Your task to perform on an android device: snooze an email in the gmail app Image 0: 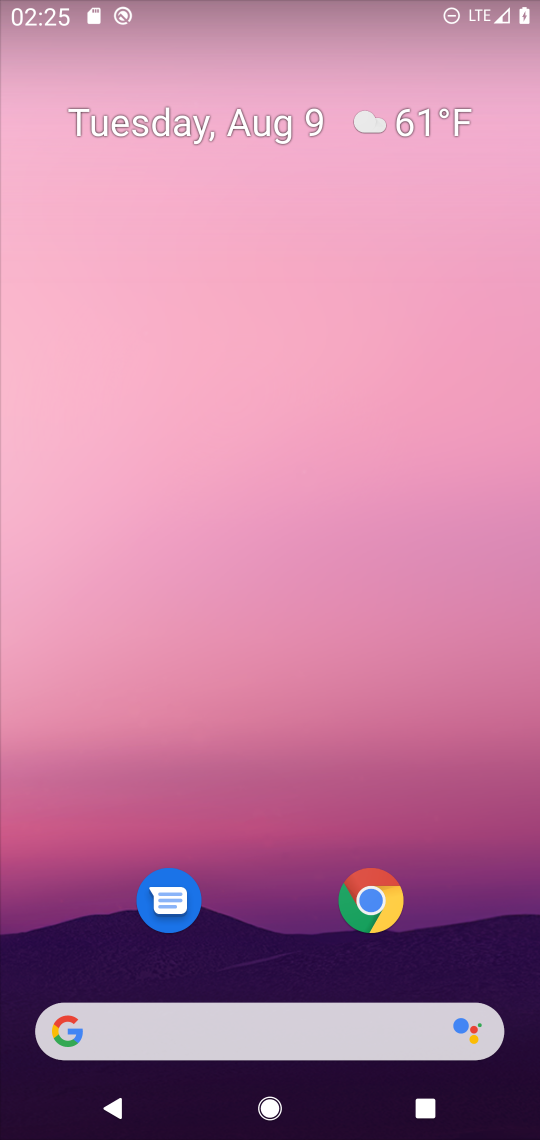
Step 0: drag from (271, 959) to (284, 292)
Your task to perform on an android device: snooze an email in the gmail app Image 1: 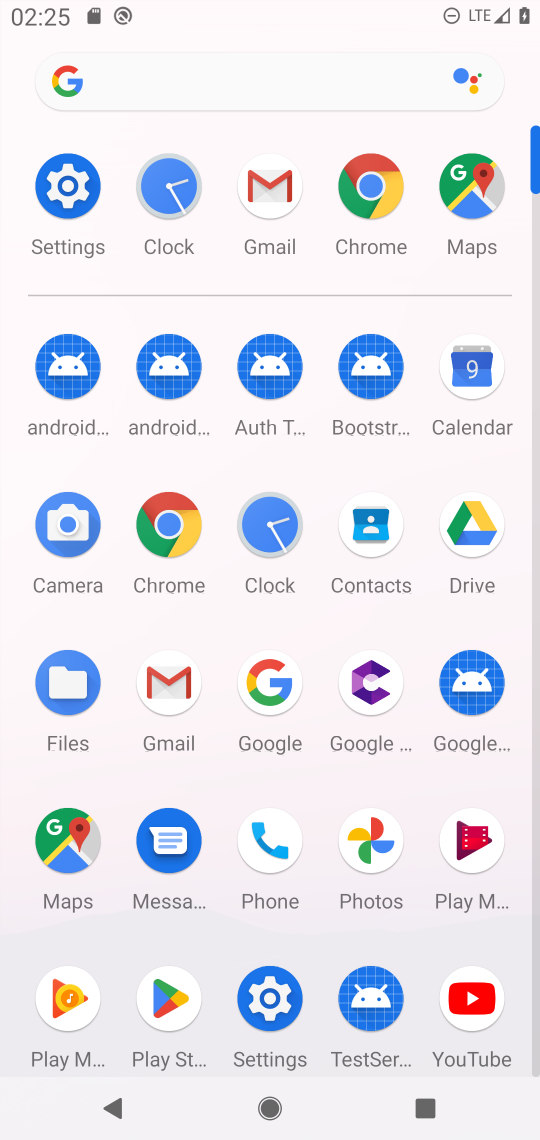
Step 1: click (162, 700)
Your task to perform on an android device: snooze an email in the gmail app Image 2: 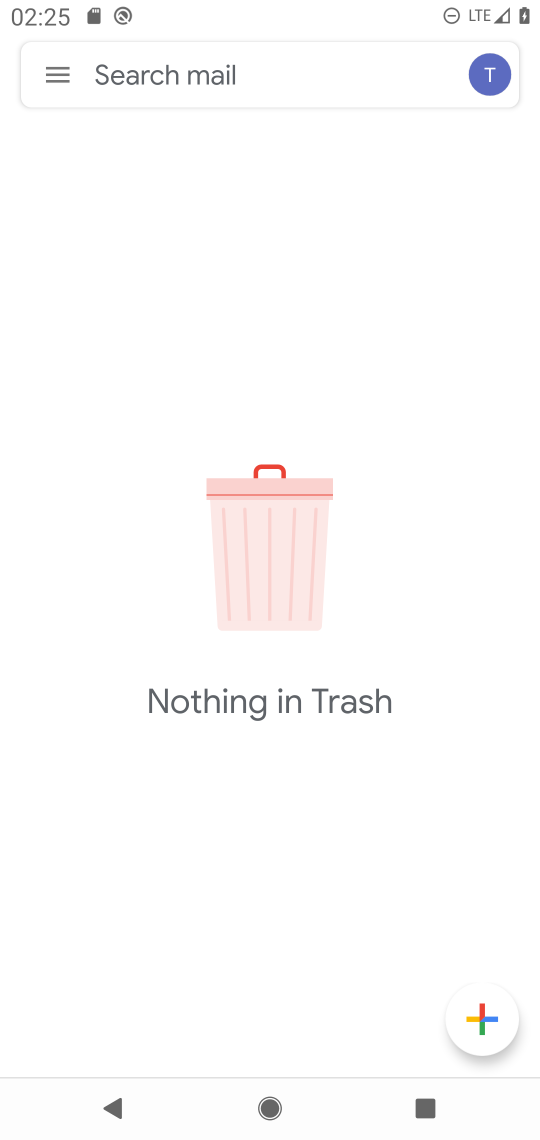
Step 2: click (60, 71)
Your task to perform on an android device: snooze an email in the gmail app Image 3: 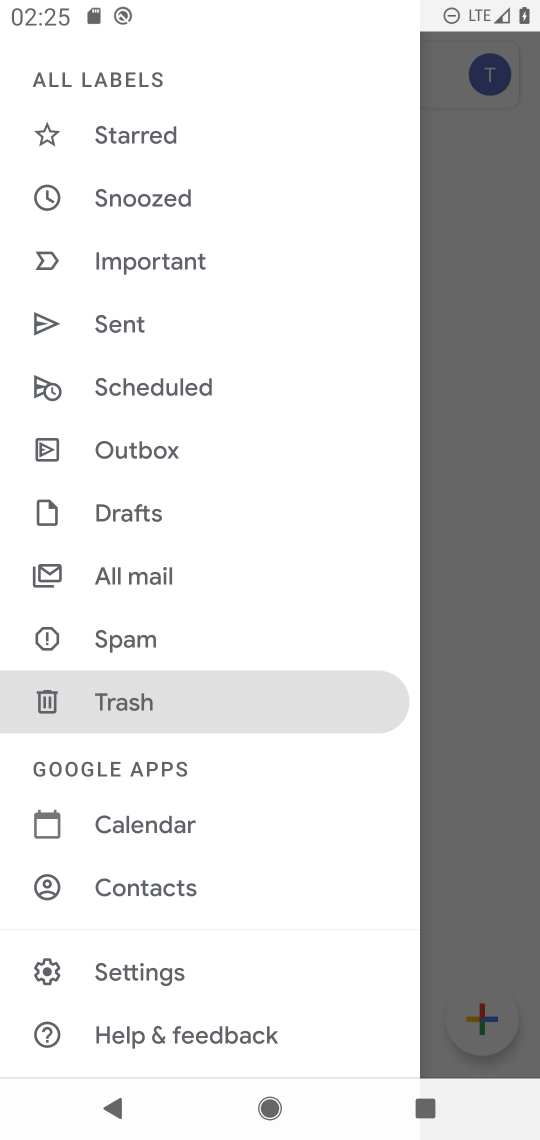
Step 3: click (156, 198)
Your task to perform on an android device: snooze an email in the gmail app Image 4: 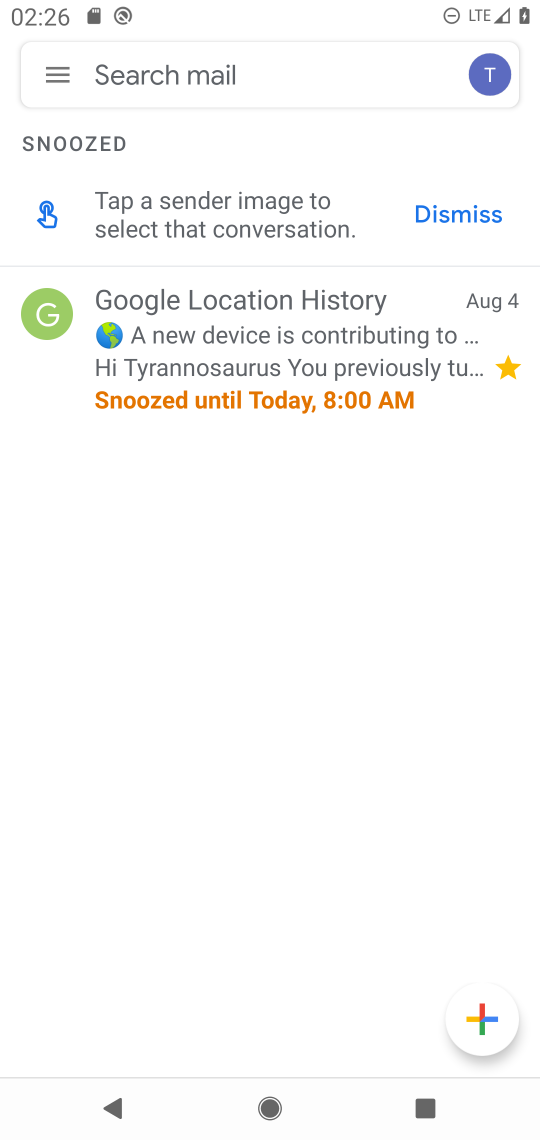
Step 4: task complete